Your task to perform on an android device: move an email to a new category in the gmail app Image 0: 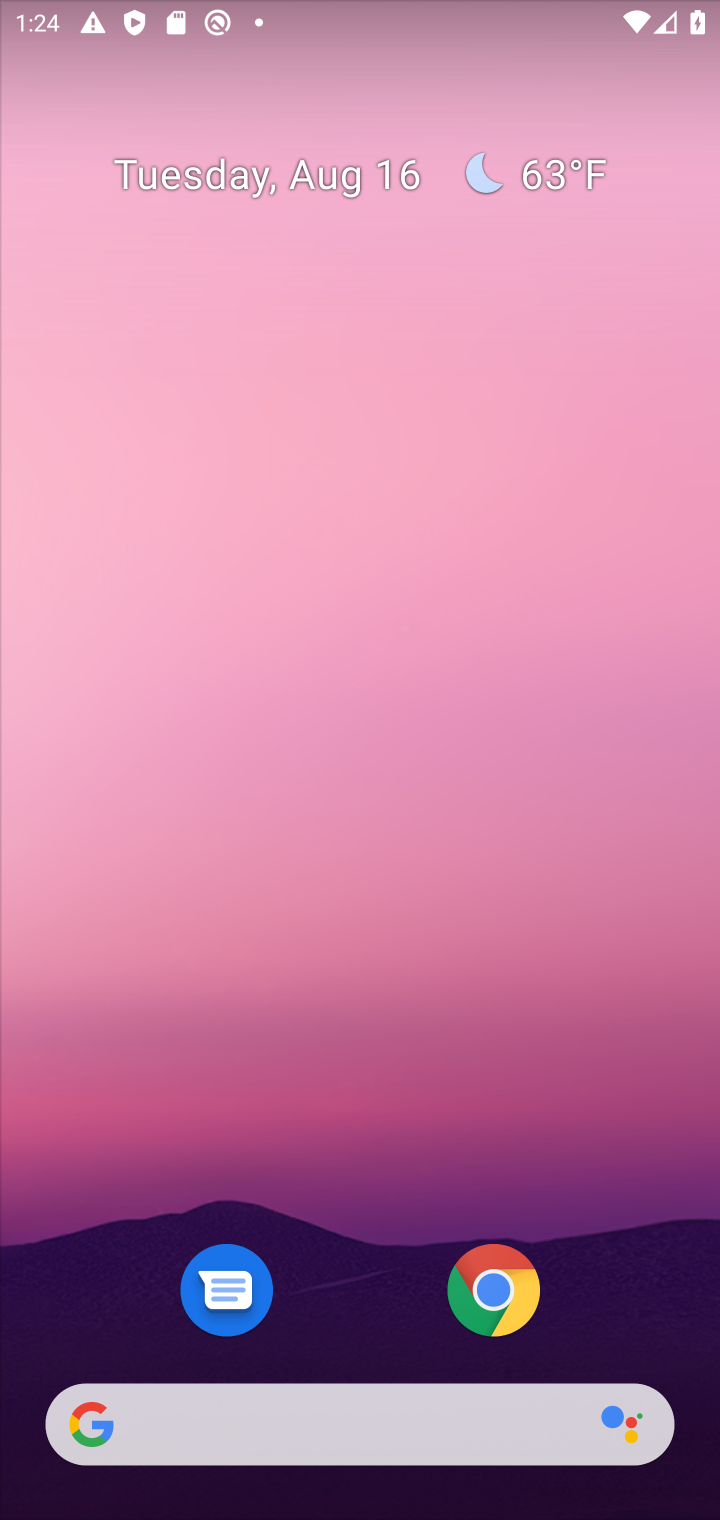
Step 0: drag from (125, 921) to (412, 0)
Your task to perform on an android device: move an email to a new category in the gmail app Image 1: 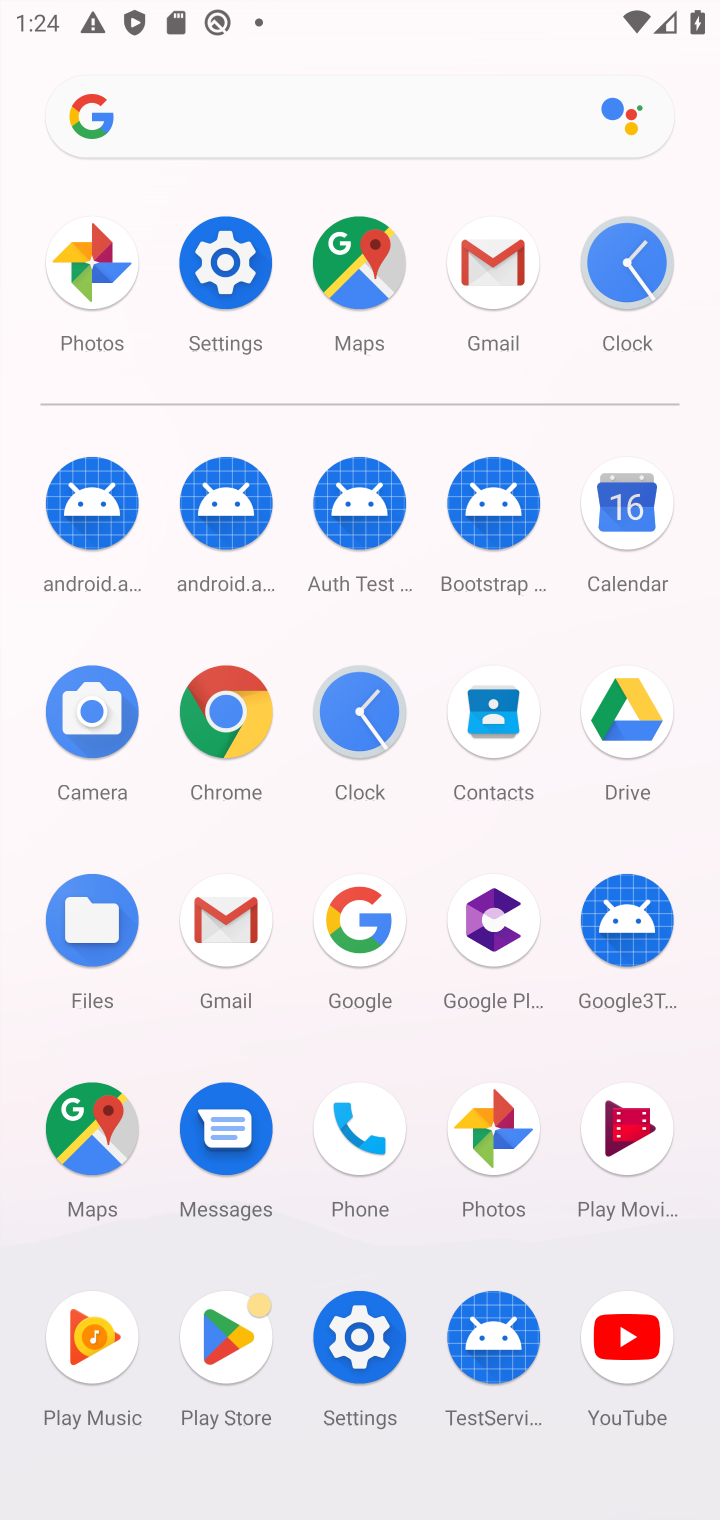
Step 1: click (492, 260)
Your task to perform on an android device: move an email to a new category in the gmail app Image 2: 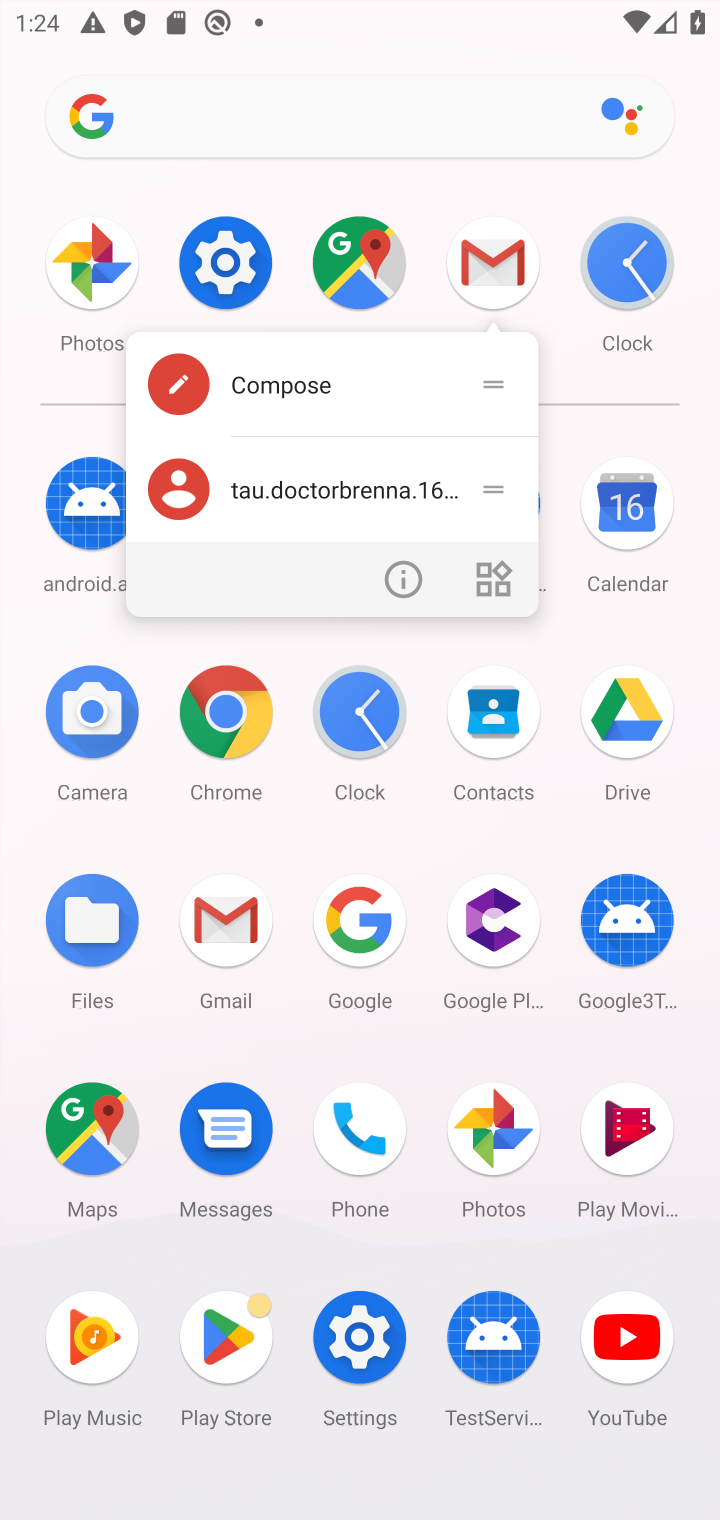
Step 2: click (492, 258)
Your task to perform on an android device: move an email to a new category in the gmail app Image 3: 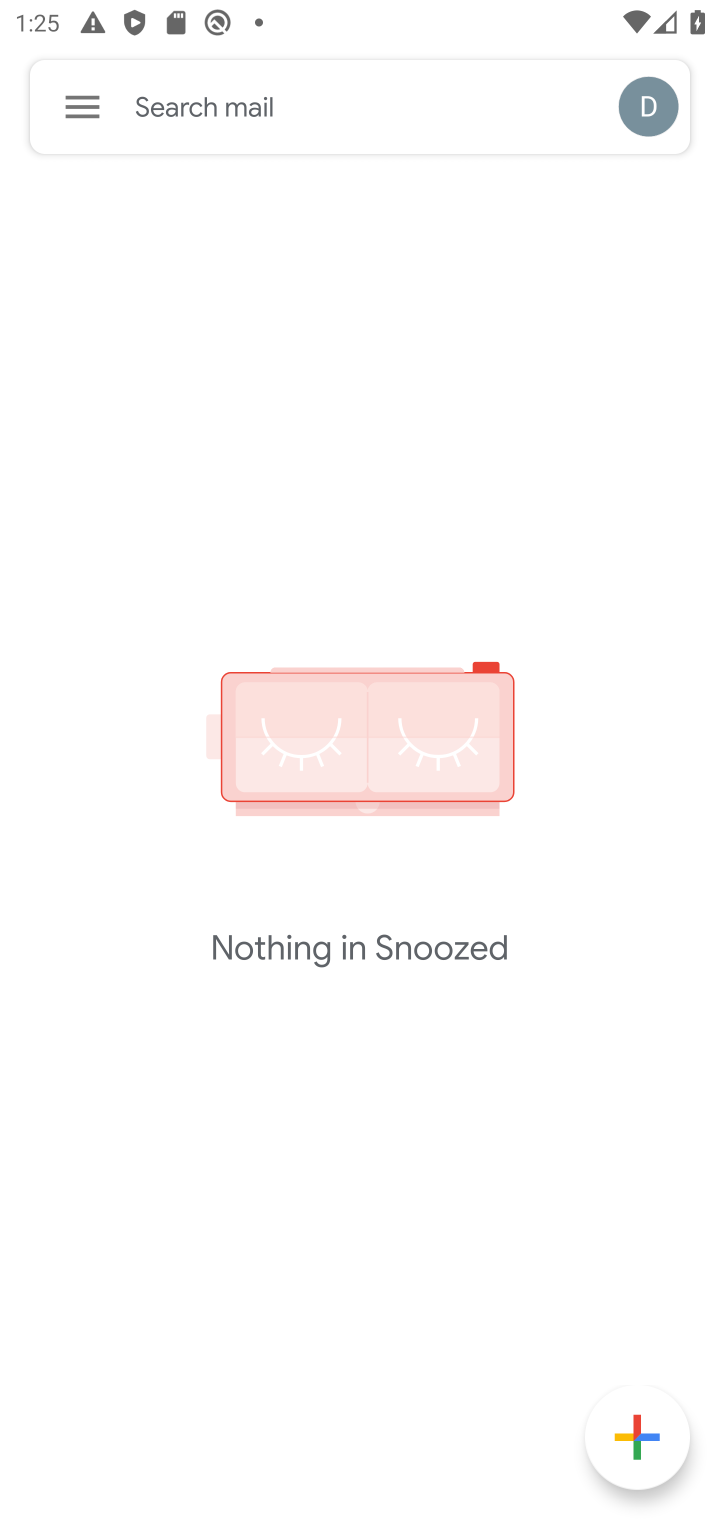
Step 3: task complete